Your task to perform on an android device: Search for Mexican restaurants on Maps Image 0: 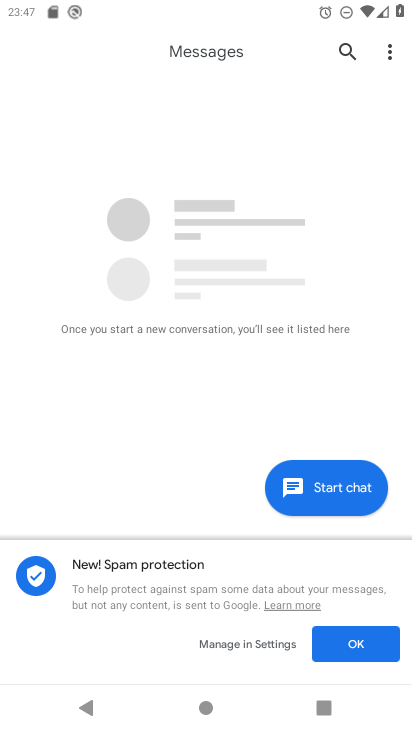
Step 0: press home button
Your task to perform on an android device: Search for Mexican restaurants on Maps Image 1: 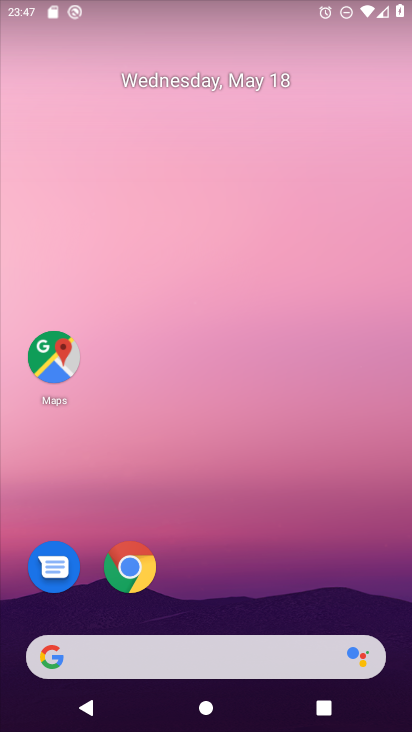
Step 1: drag from (226, 665) to (295, 311)
Your task to perform on an android device: Search for Mexican restaurants on Maps Image 2: 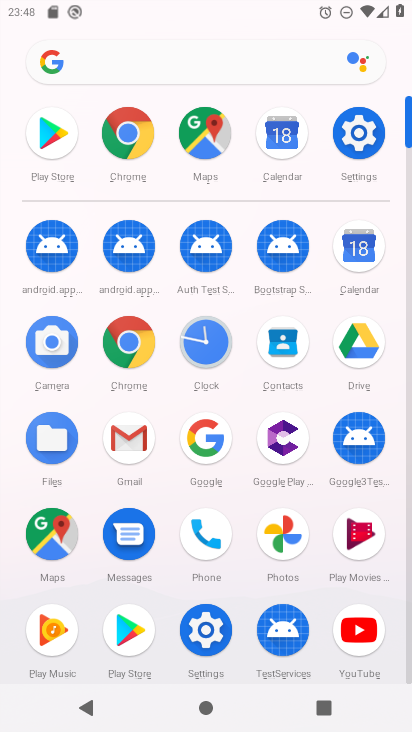
Step 2: click (187, 162)
Your task to perform on an android device: Search for Mexican restaurants on Maps Image 3: 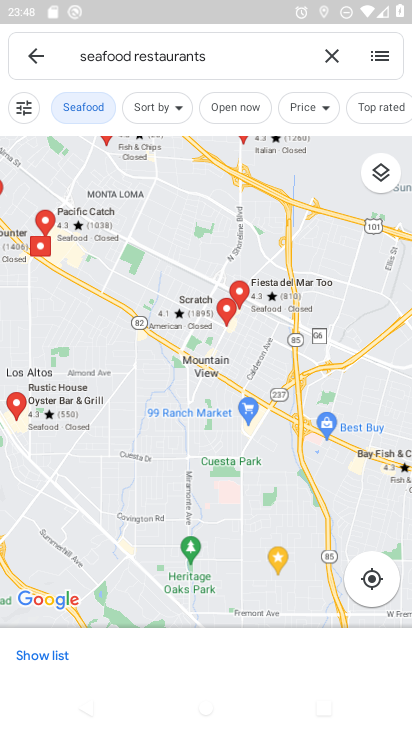
Step 3: drag from (143, 157) to (147, 238)
Your task to perform on an android device: Search for Mexican restaurants on Maps Image 4: 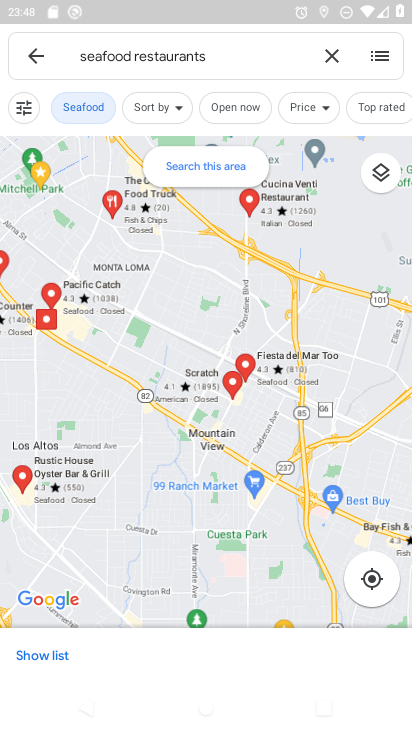
Step 4: click (327, 52)
Your task to perform on an android device: Search for Mexican restaurants on Maps Image 5: 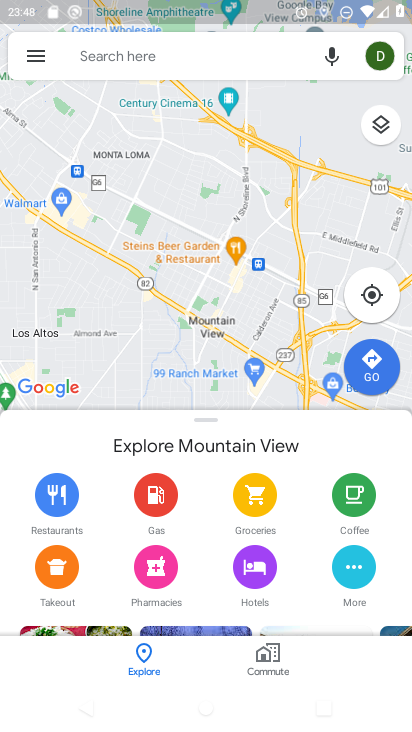
Step 5: click (133, 47)
Your task to perform on an android device: Search for Mexican restaurants on Maps Image 6: 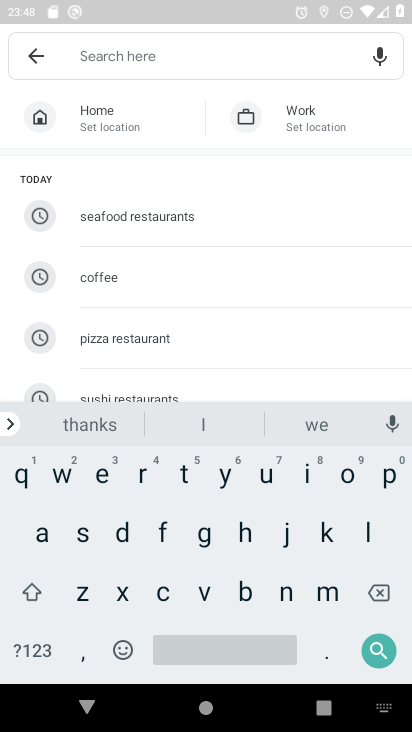
Step 6: click (330, 584)
Your task to perform on an android device: Search for Mexican restaurants on Maps Image 7: 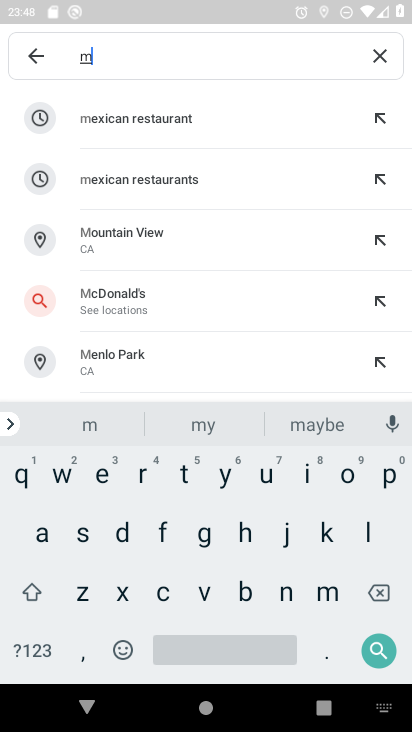
Step 7: click (154, 126)
Your task to perform on an android device: Search for Mexican restaurants on Maps Image 8: 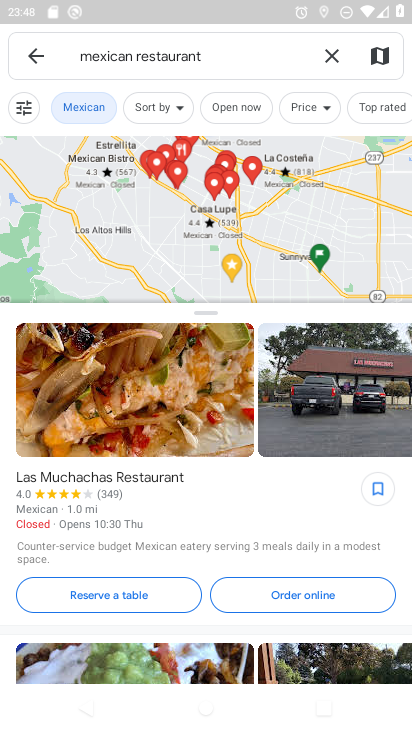
Step 8: click (203, 168)
Your task to perform on an android device: Search for Mexican restaurants on Maps Image 9: 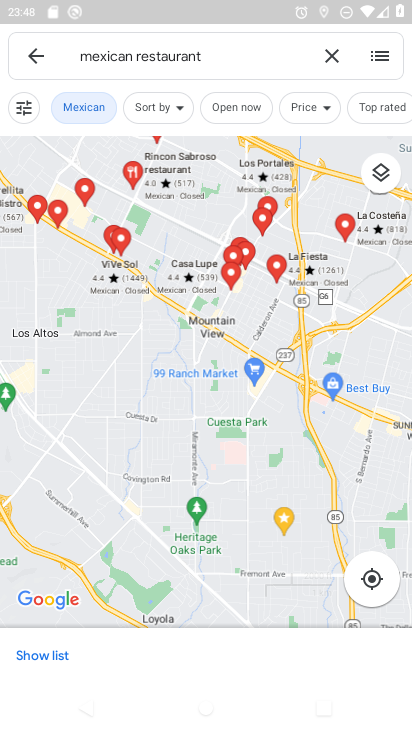
Step 9: task complete